Your task to perform on an android device: Toggle the flashlight Image 0: 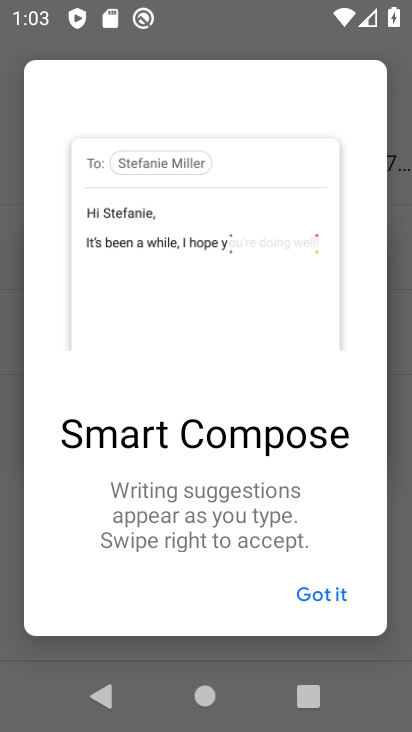
Step 0: click (321, 585)
Your task to perform on an android device: Toggle the flashlight Image 1: 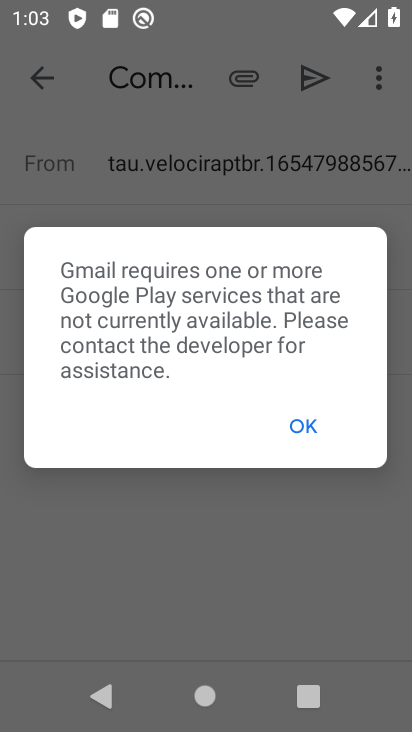
Step 1: click (309, 405)
Your task to perform on an android device: Toggle the flashlight Image 2: 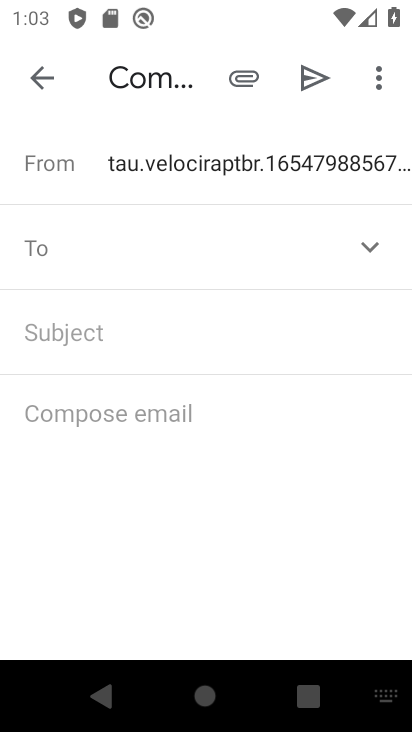
Step 2: press back button
Your task to perform on an android device: Toggle the flashlight Image 3: 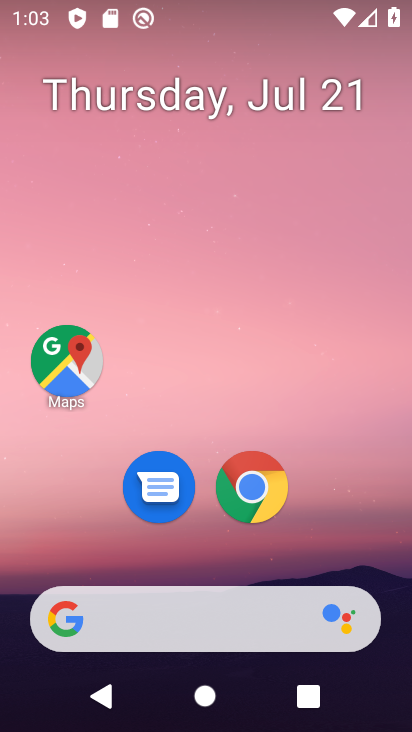
Step 3: drag from (169, 539) to (248, 40)
Your task to perform on an android device: Toggle the flashlight Image 4: 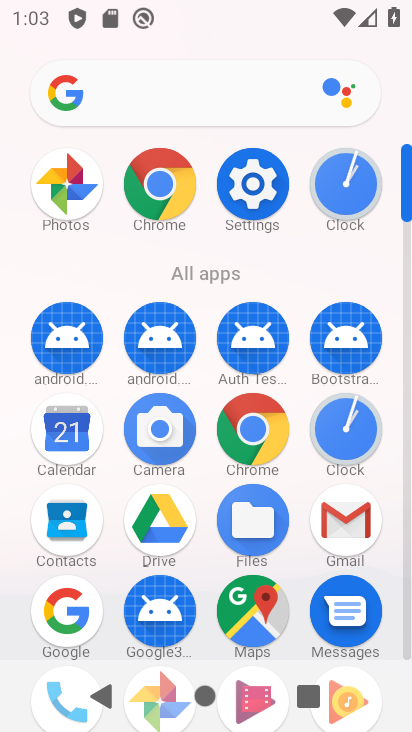
Step 4: click (246, 181)
Your task to perform on an android device: Toggle the flashlight Image 5: 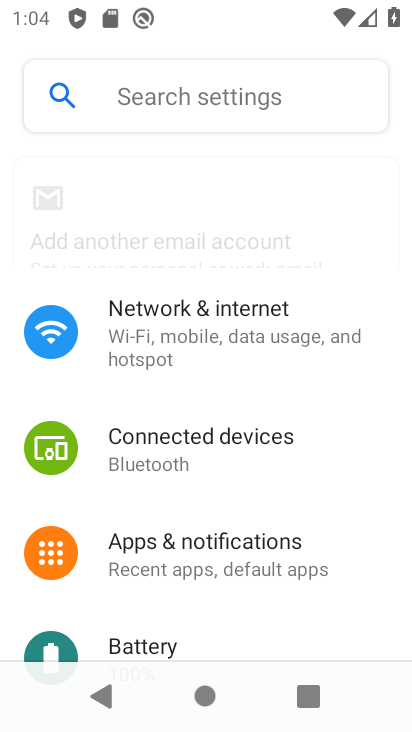
Step 5: click (202, 91)
Your task to perform on an android device: Toggle the flashlight Image 6: 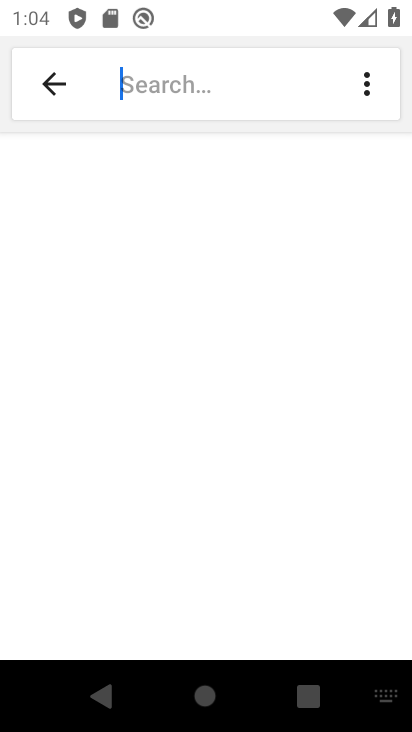
Step 6: type "flashlight"
Your task to perform on an android device: Toggle the flashlight Image 7: 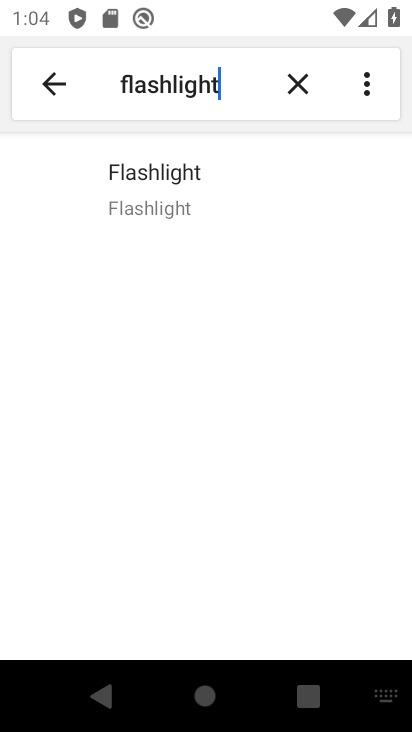
Step 7: click (139, 152)
Your task to perform on an android device: Toggle the flashlight Image 8: 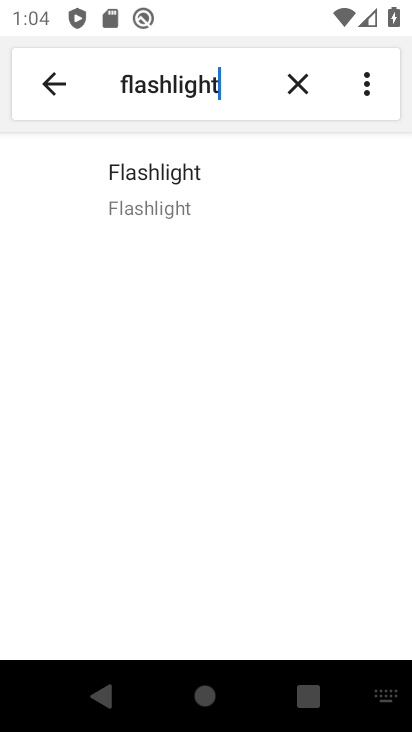
Step 8: task complete